Your task to perform on an android device: Set the phone to "Do not disturb". Image 0: 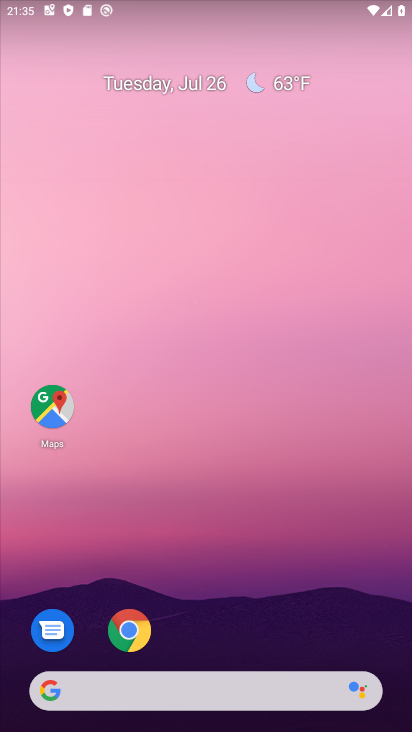
Step 0: drag from (277, 628) to (192, 17)
Your task to perform on an android device: Set the phone to "Do not disturb". Image 1: 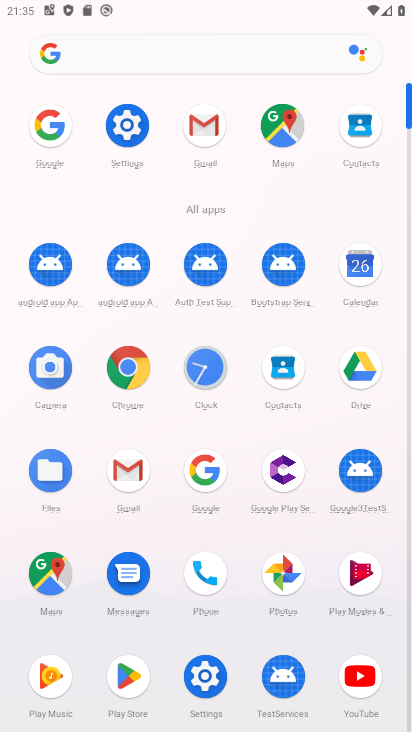
Step 1: click (125, 137)
Your task to perform on an android device: Set the phone to "Do not disturb". Image 2: 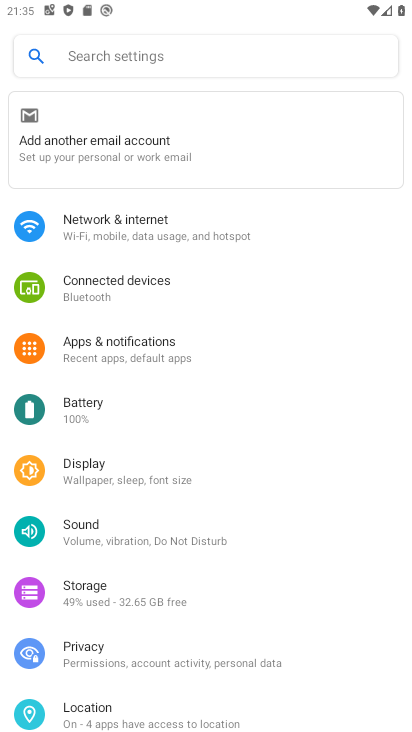
Step 2: click (125, 526)
Your task to perform on an android device: Set the phone to "Do not disturb". Image 3: 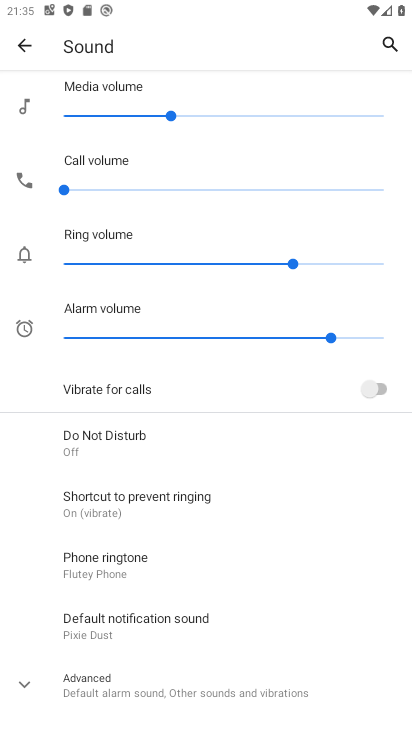
Step 3: click (133, 453)
Your task to perform on an android device: Set the phone to "Do not disturb". Image 4: 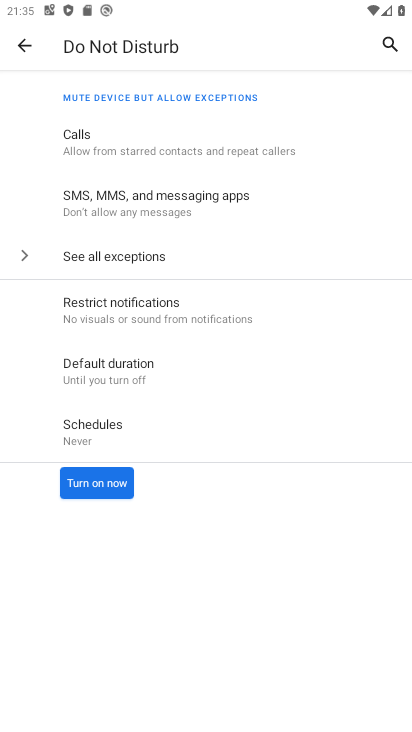
Step 4: click (87, 485)
Your task to perform on an android device: Set the phone to "Do not disturb". Image 5: 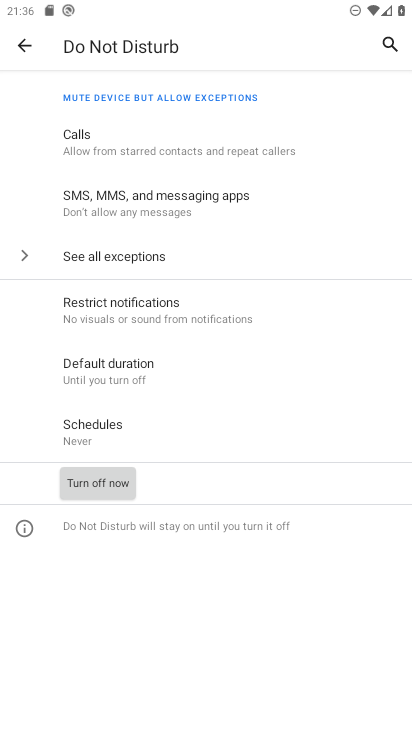
Step 5: task complete